Your task to perform on an android device: snooze an email in the gmail app Image 0: 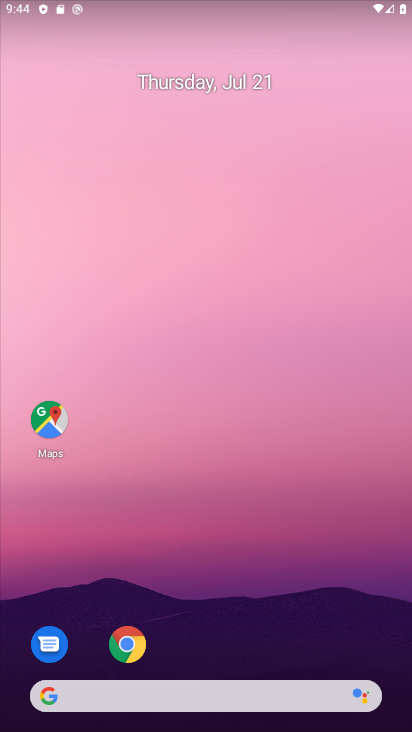
Step 0: drag from (239, 619) to (211, 332)
Your task to perform on an android device: snooze an email in the gmail app Image 1: 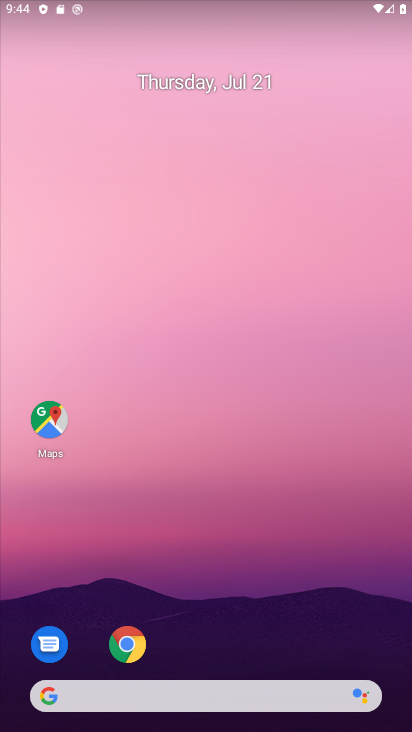
Step 1: drag from (218, 542) to (186, 132)
Your task to perform on an android device: snooze an email in the gmail app Image 2: 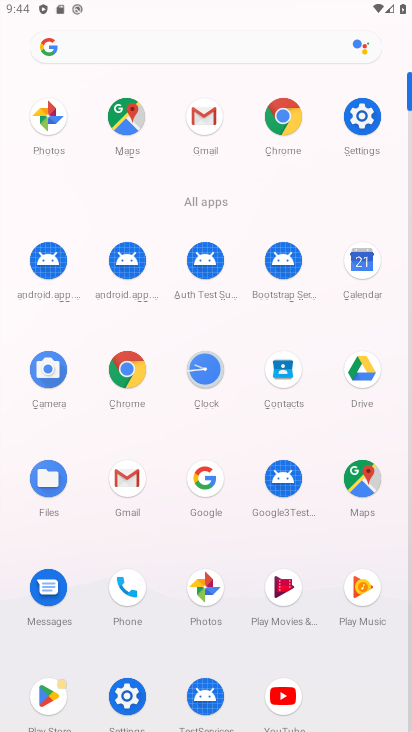
Step 2: click (125, 479)
Your task to perform on an android device: snooze an email in the gmail app Image 3: 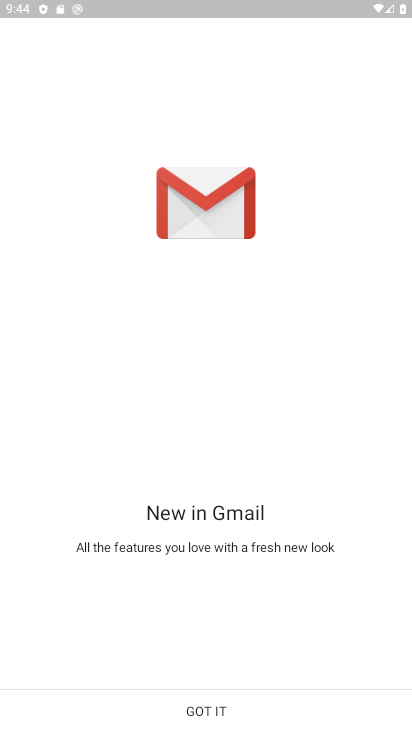
Step 3: click (237, 713)
Your task to perform on an android device: snooze an email in the gmail app Image 4: 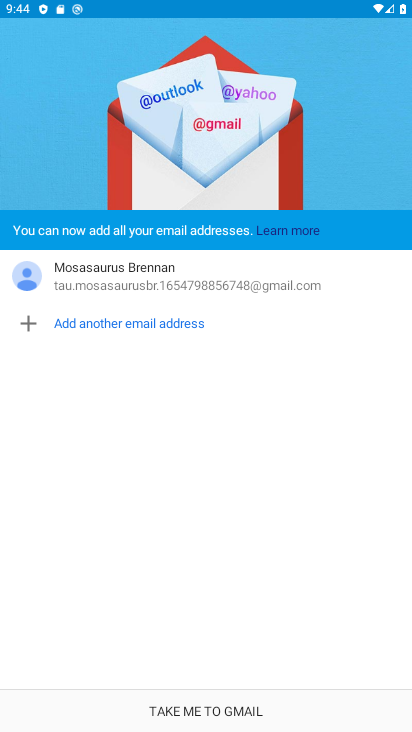
Step 4: click (237, 710)
Your task to perform on an android device: snooze an email in the gmail app Image 5: 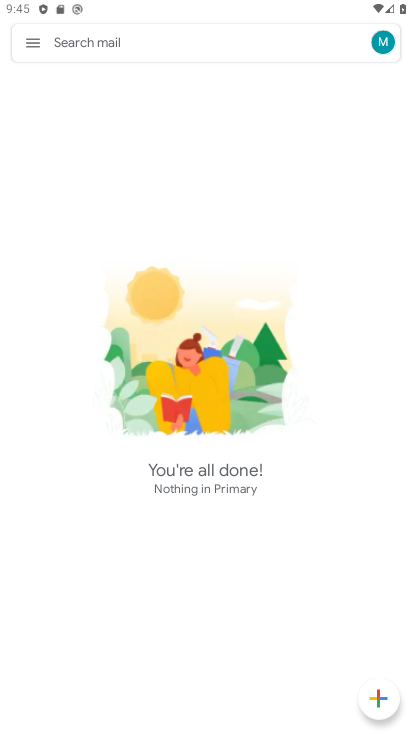
Step 5: task complete